Your task to perform on an android device: Open notification settings Image 0: 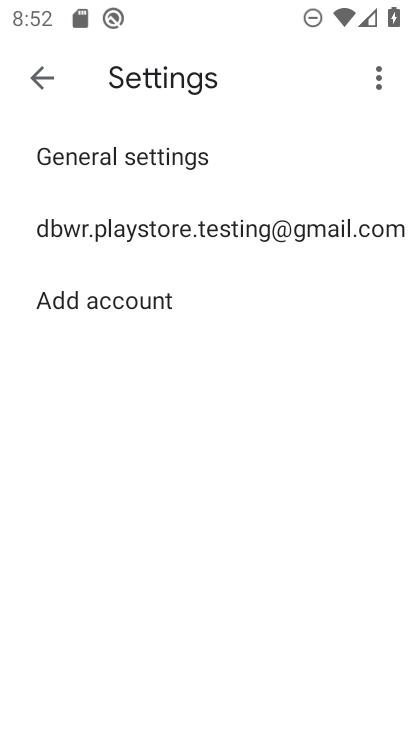
Step 0: press home button
Your task to perform on an android device: Open notification settings Image 1: 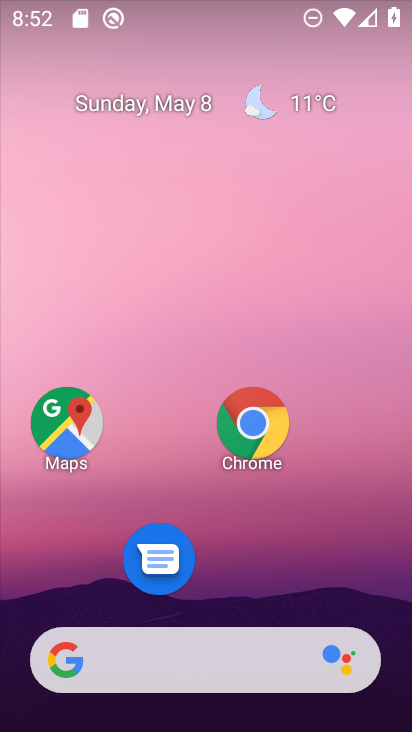
Step 1: drag from (352, 568) to (342, 2)
Your task to perform on an android device: Open notification settings Image 2: 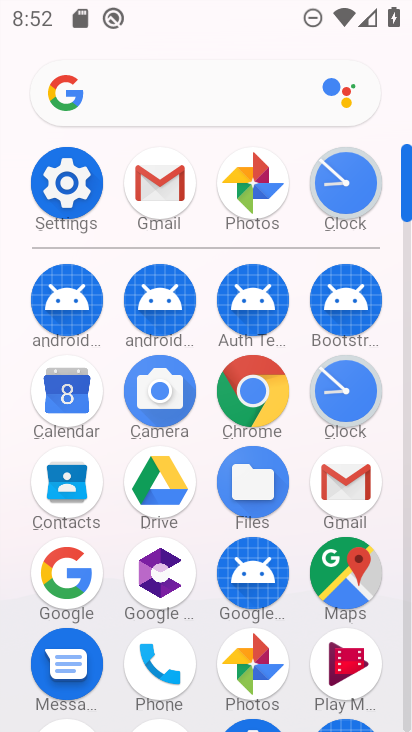
Step 2: click (65, 190)
Your task to perform on an android device: Open notification settings Image 3: 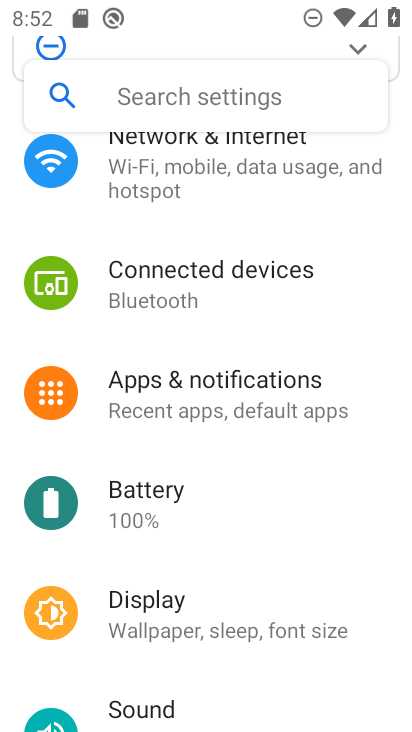
Step 3: click (194, 408)
Your task to perform on an android device: Open notification settings Image 4: 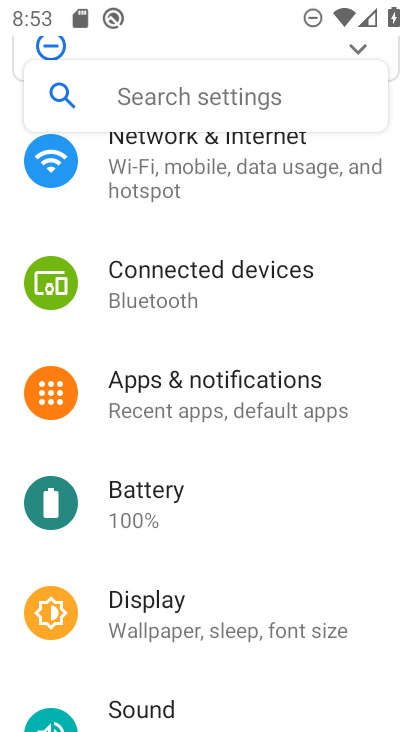
Step 4: click (217, 406)
Your task to perform on an android device: Open notification settings Image 5: 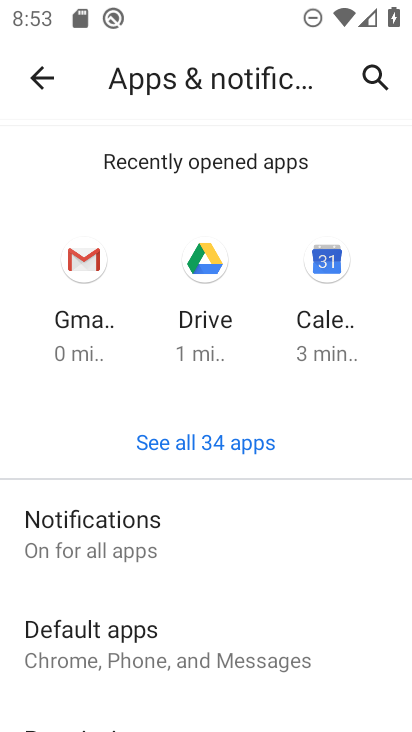
Step 5: task complete